Your task to perform on an android device: clear all cookies in the chrome app Image 0: 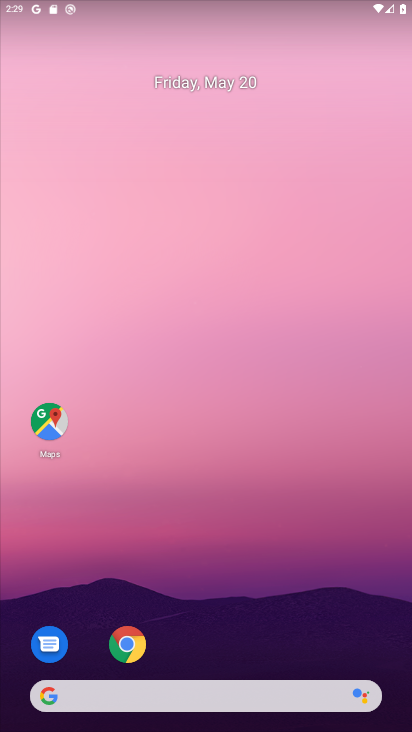
Step 0: click (124, 642)
Your task to perform on an android device: clear all cookies in the chrome app Image 1: 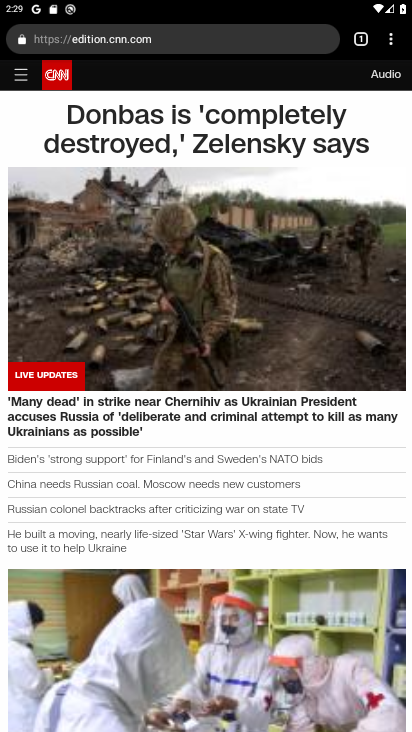
Step 1: drag from (390, 46) to (253, 260)
Your task to perform on an android device: clear all cookies in the chrome app Image 2: 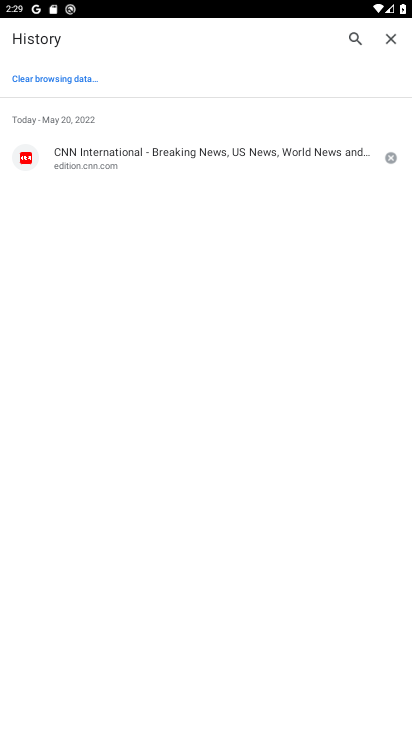
Step 2: click (64, 80)
Your task to perform on an android device: clear all cookies in the chrome app Image 3: 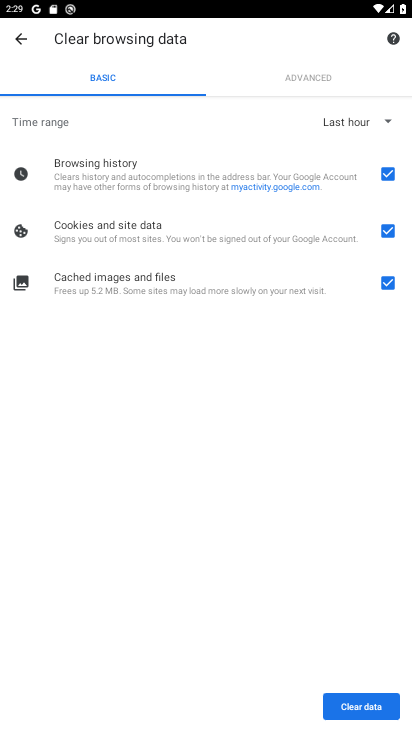
Step 3: click (396, 165)
Your task to perform on an android device: clear all cookies in the chrome app Image 4: 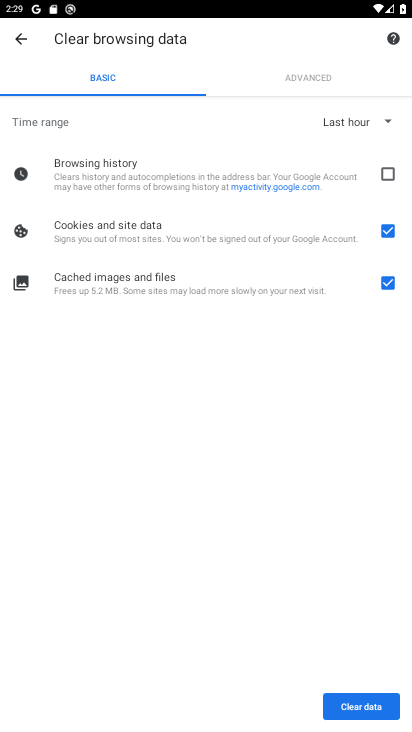
Step 4: click (387, 283)
Your task to perform on an android device: clear all cookies in the chrome app Image 5: 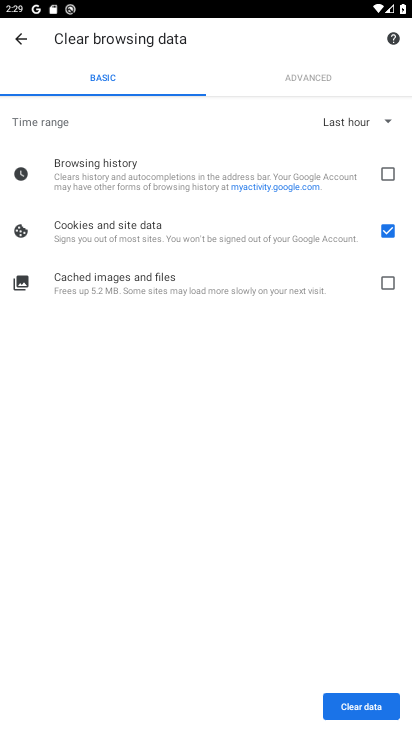
Step 5: click (361, 719)
Your task to perform on an android device: clear all cookies in the chrome app Image 6: 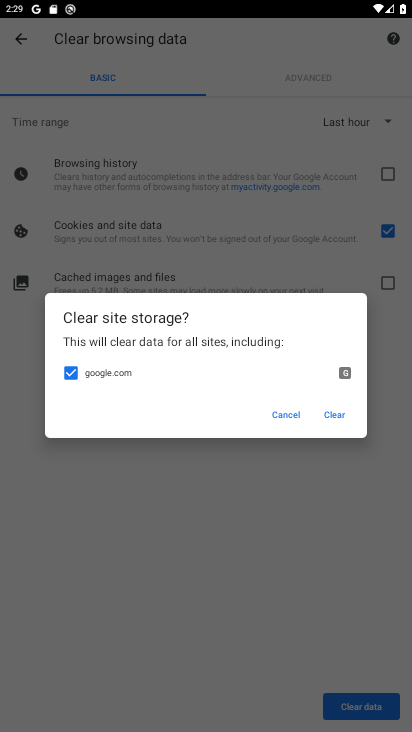
Step 6: click (329, 416)
Your task to perform on an android device: clear all cookies in the chrome app Image 7: 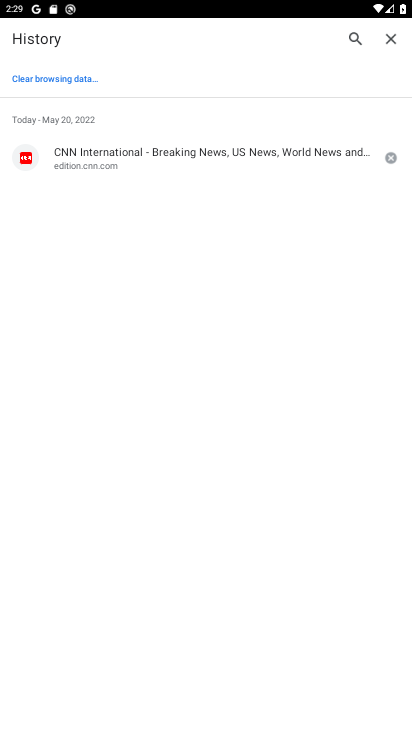
Step 7: task complete